Your task to perform on an android device: change your default location settings in chrome Image 0: 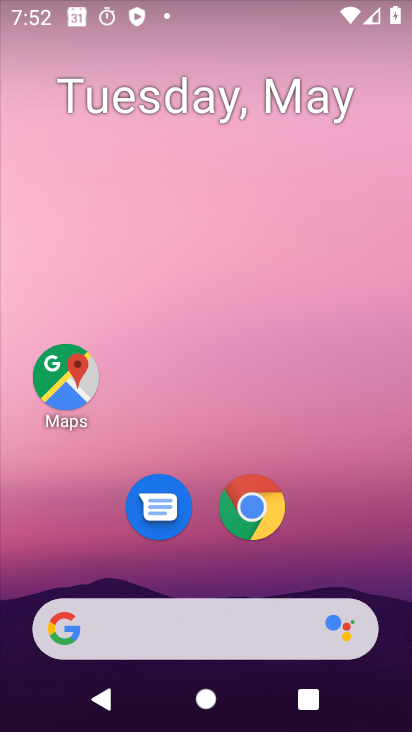
Step 0: click (255, 511)
Your task to perform on an android device: change your default location settings in chrome Image 1: 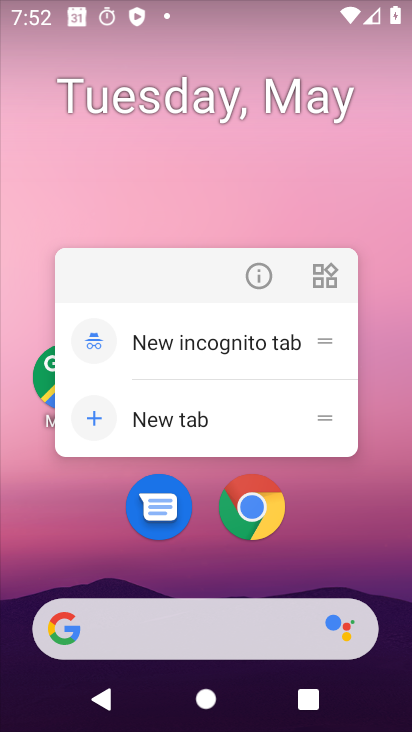
Step 1: click (255, 509)
Your task to perform on an android device: change your default location settings in chrome Image 2: 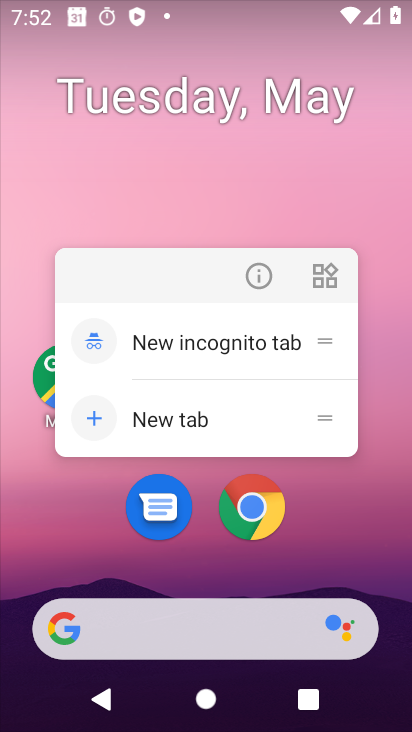
Step 2: click (255, 509)
Your task to perform on an android device: change your default location settings in chrome Image 3: 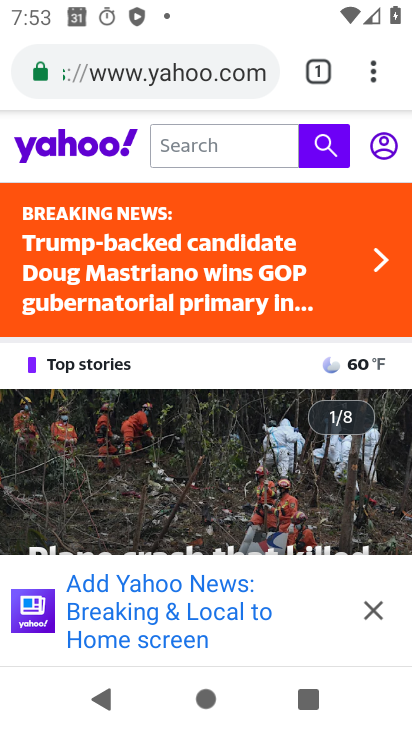
Step 3: click (376, 70)
Your task to perform on an android device: change your default location settings in chrome Image 4: 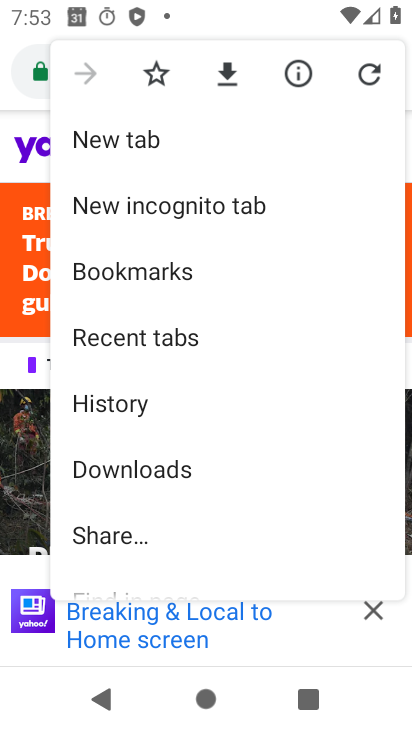
Step 4: drag from (144, 439) to (167, 257)
Your task to perform on an android device: change your default location settings in chrome Image 5: 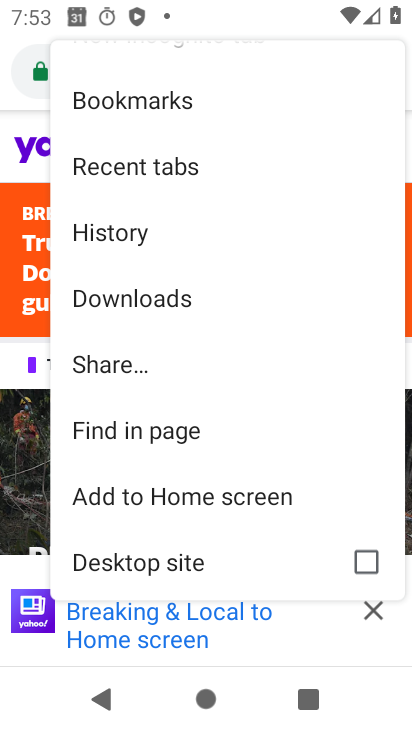
Step 5: drag from (200, 510) to (226, 364)
Your task to perform on an android device: change your default location settings in chrome Image 6: 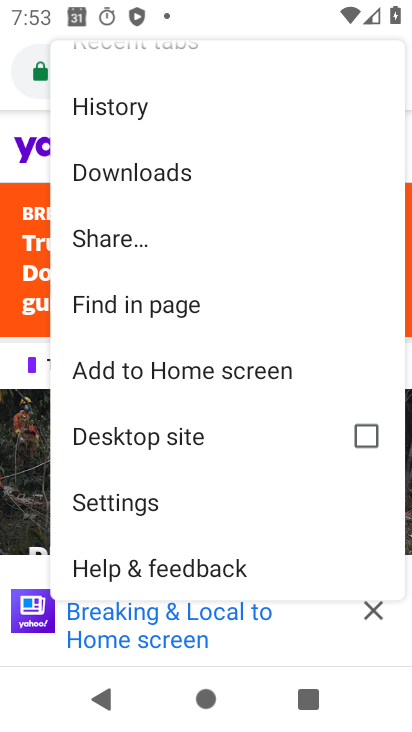
Step 6: click (202, 497)
Your task to perform on an android device: change your default location settings in chrome Image 7: 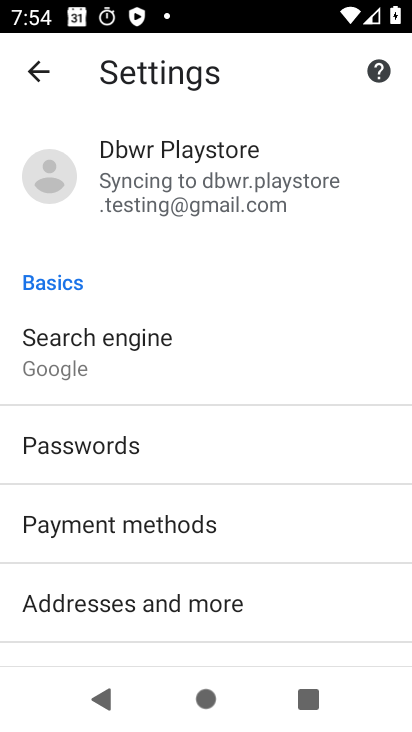
Step 7: drag from (185, 567) to (267, 117)
Your task to perform on an android device: change your default location settings in chrome Image 8: 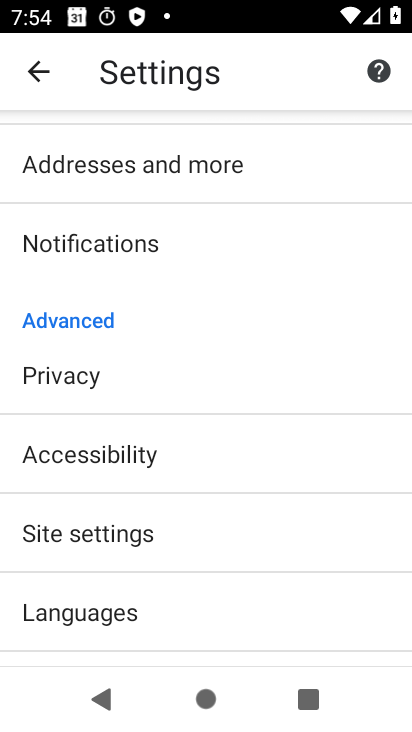
Step 8: click (124, 542)
Your task to perform on an android device: change your default location settings in chrome Image 9: 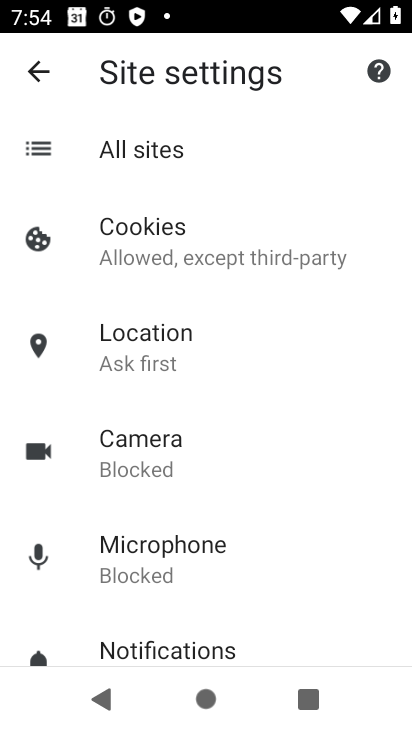
Step 9: click (130, 363)
Your task to perform on an android device: change your default location settings in chrome Image 10: 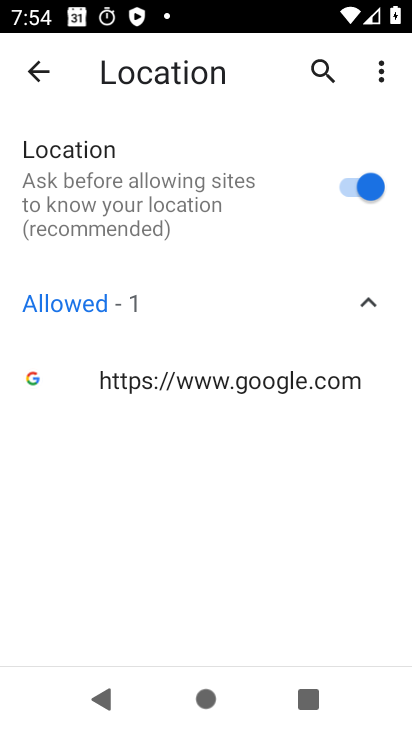
Step 10: click (330, 207)
Your task to perform on an android device: change your default location settings in chrome Image 11: 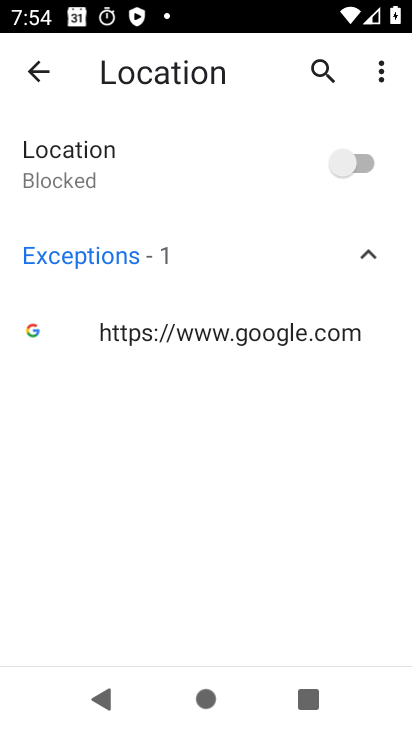
Step 11: task complete